Your task to perform on an android device: Show me recent news Image 0: 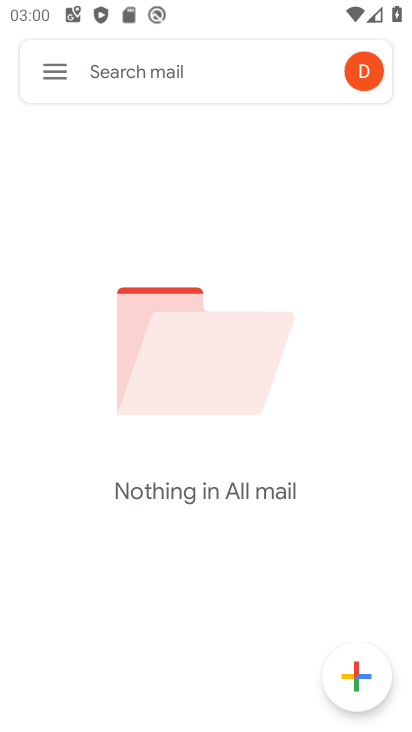
Step 0: press home button
Your task to perform on an android device: Show me recent news Image 1: 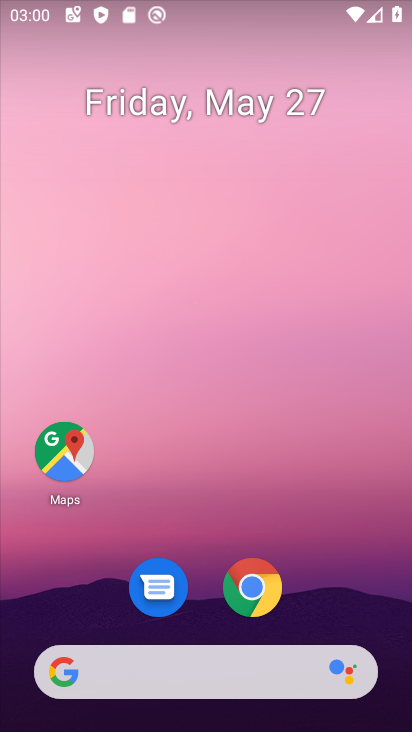
Step 1: click (182, 675)
Your task to perform on an android device: Show me recent news Image 2: 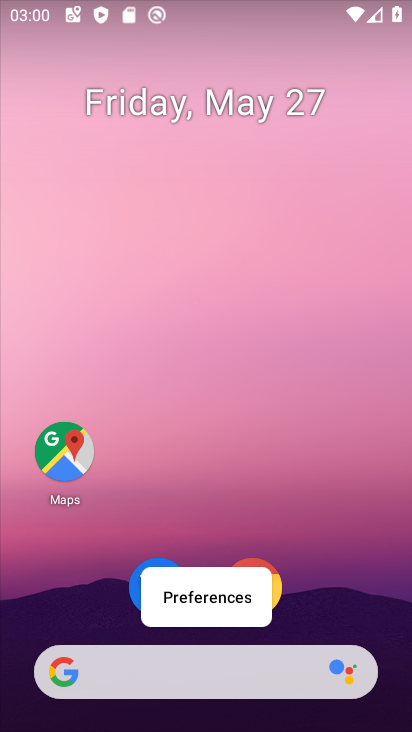
Step 2: click (273, 672)
Your task to perform on an android device: Show me recent news Image 3: 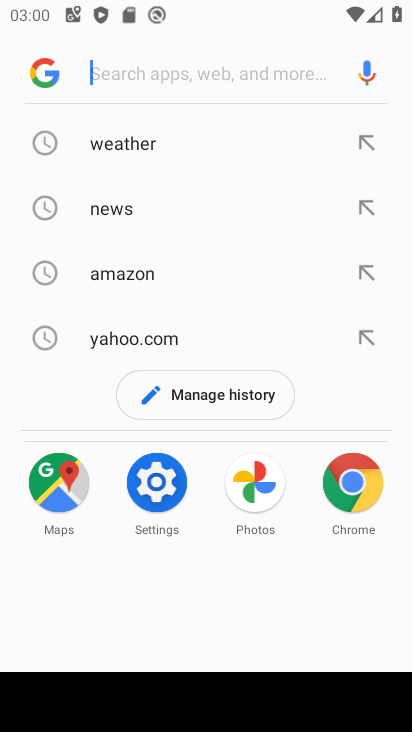
Step 3: click (198, 73)
Your task to perform on an android device: Show me recent news Image 4: 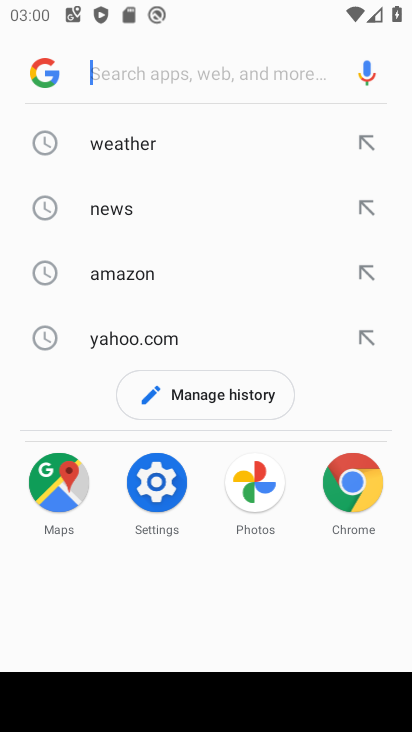
Step 4: type "recent news"
Your task to perform on an android device: Show me recent news Image 5: 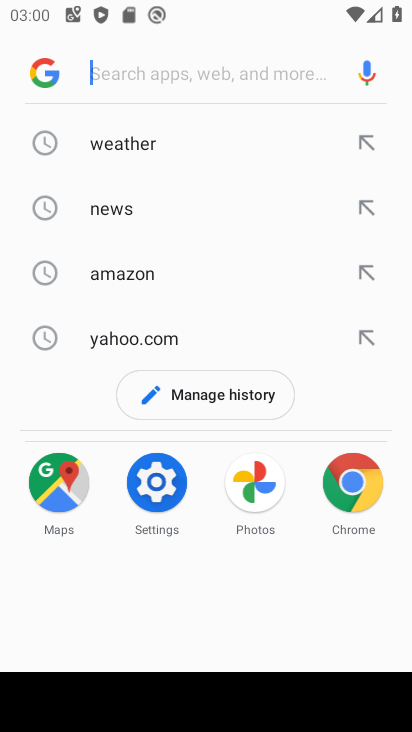
Step 5: click (198, 73)
Your task to perform on an android device: Show me recent news Image 6: 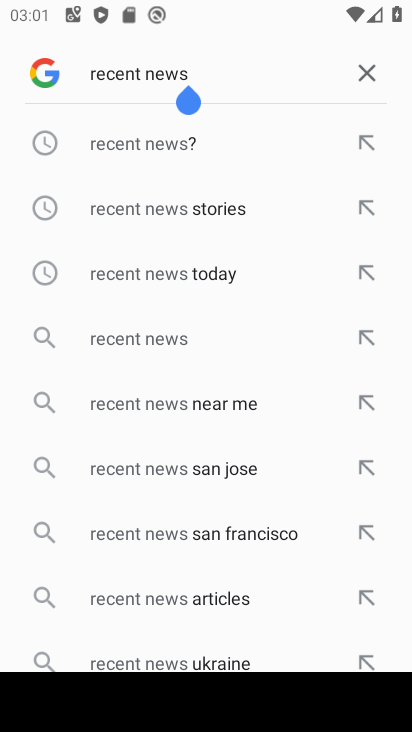
Step 6: click (130, 339)
Your task to perform on an android device: Show me recent news Image 7: 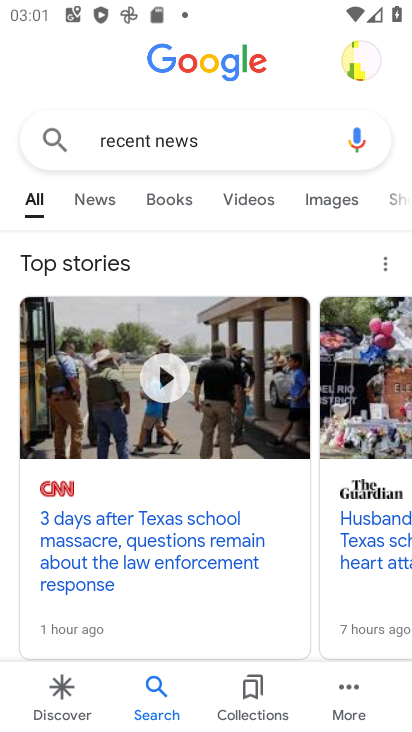
Step 7: task complete